Your task to perform on an android device: What is the recent news? Image 0: 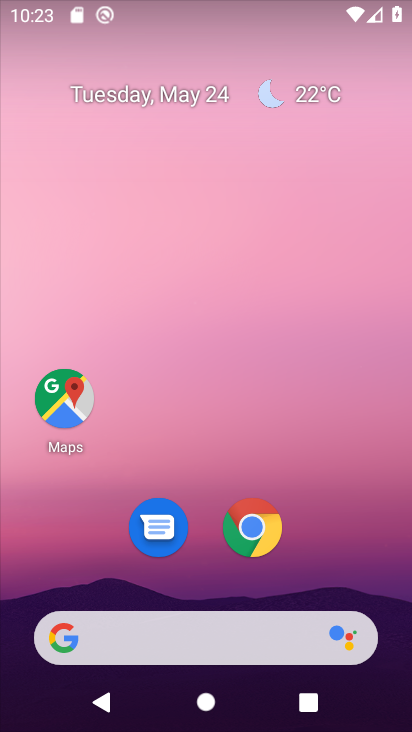
Step 0: press home button
Your task to perform on an android device: What is the recent news? Image 1: 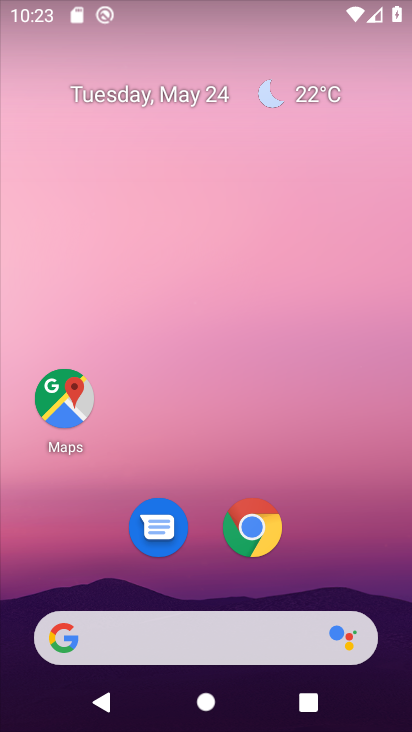
Step 1: click (69, 633)
Your task to perform on an android device: What is the recent news? Image 2: 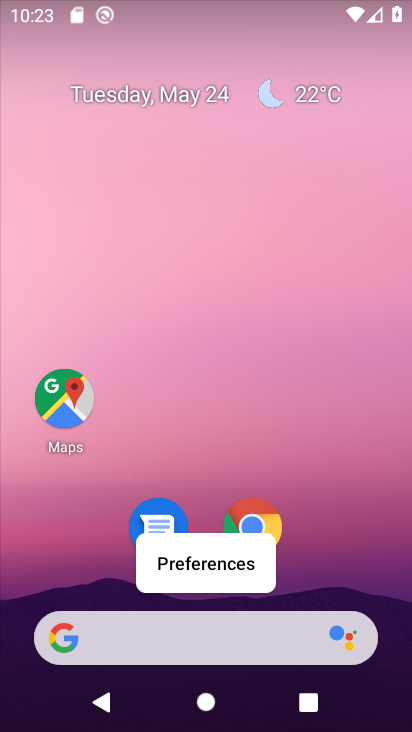
Step 2: click (65, 641)
Your task to perform on an android device: What is the recent news? Image 3: 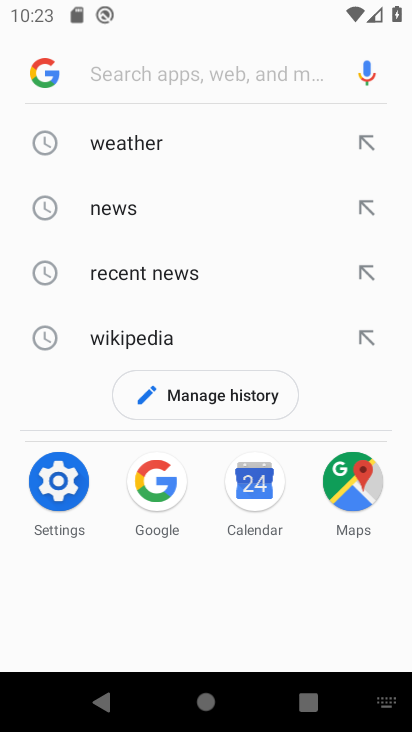
Step 3: click (130, 211)
Your task to perform on an android device: What is the recent news? Image 4: 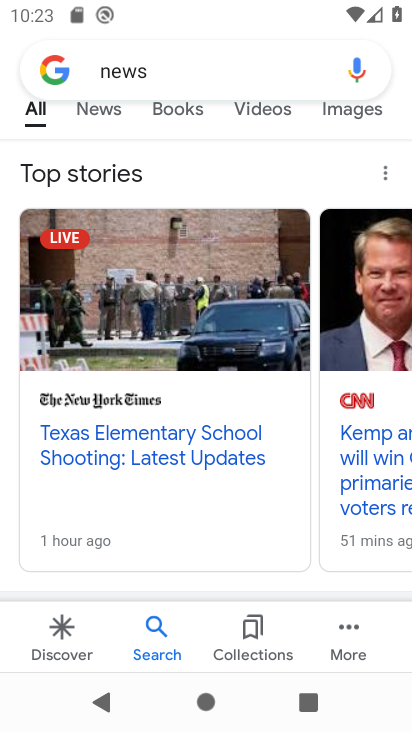
Step 4: click (100, 112)
Your task to perform on an android device: What is the recent news? Image 5: 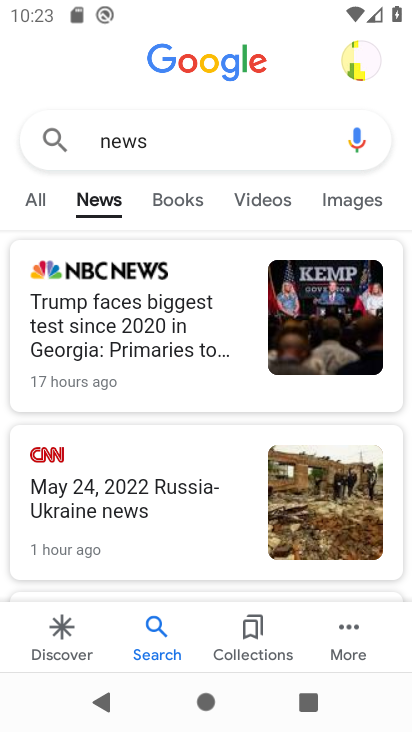
Step 5: task complete